Your task to perform on an android device: turn pop-ups off in chrome Image 0: 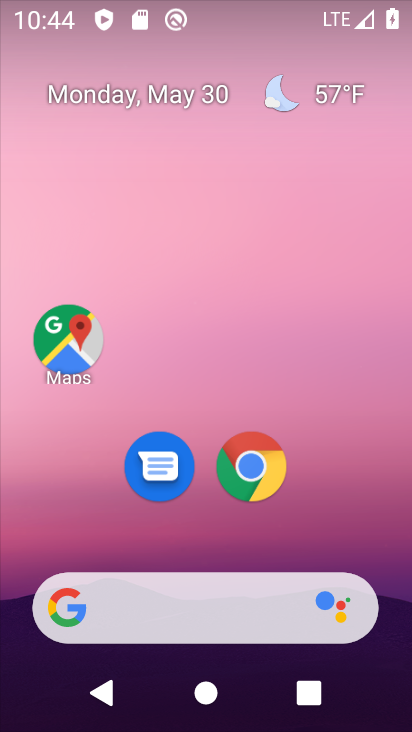
Step 0: click (259, 464)
Your task to perform on an android device: turn pop-ups off in chrome Image 1: 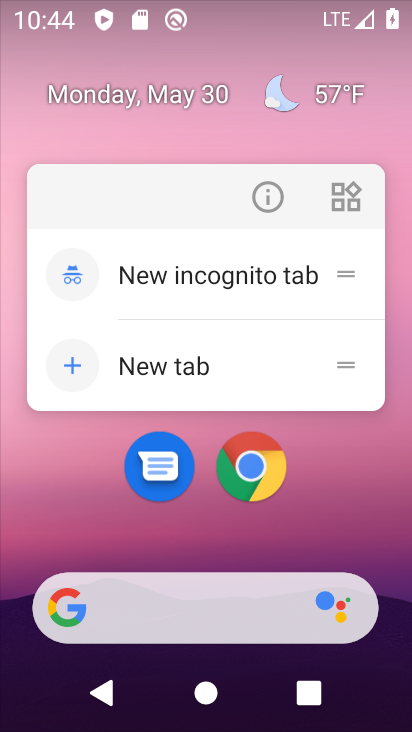
Step 1: click (251, 474)
Your task to perform on an android device: turn pop-ups off in chrome Image 2: 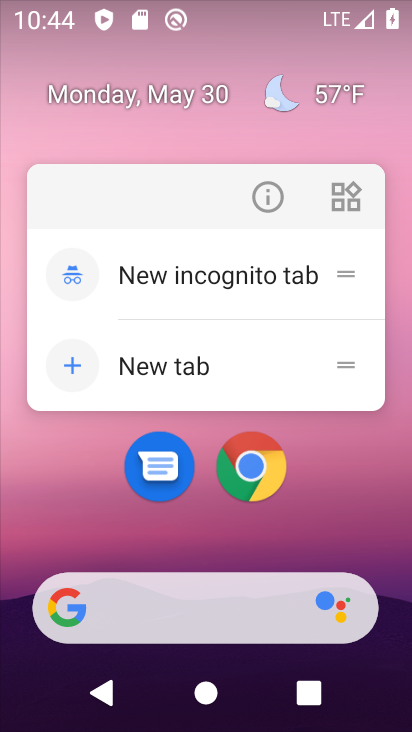
Step 2: click (249, 472)
Your task to perform on an android device: turn pop-ups off in chrome Image 3: 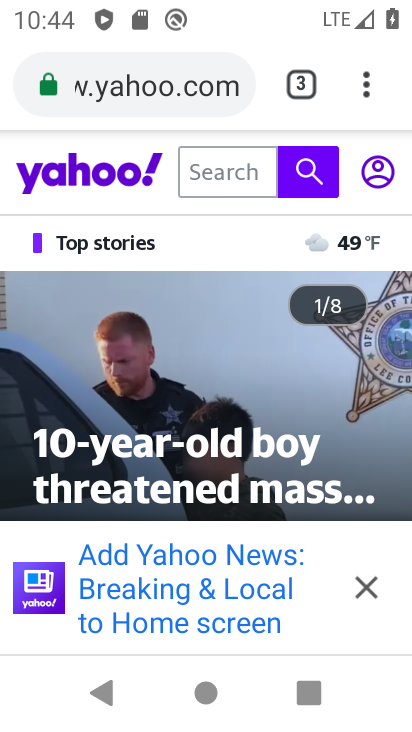
Step 3: drag from (358, 85) to (216, 483)
Your task to perform on an android device: turn pop-ups off in chrome Image 4: 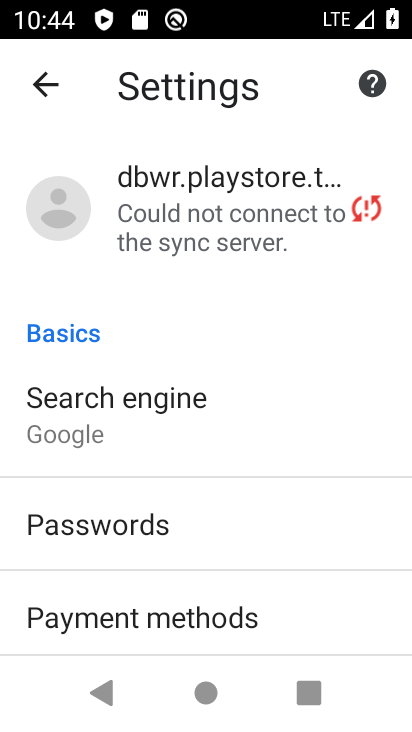
Step 4: drag from (328, 600) to (314, 140)
Your task to perform on an android device: turn pop-ups off in chrome Image 5: 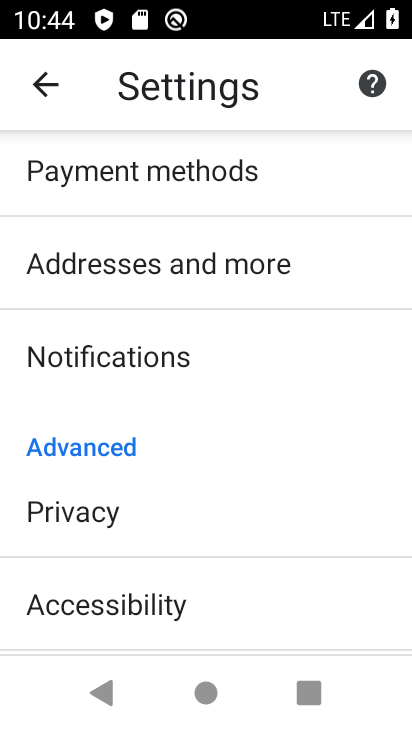
Step 5: drag from (318, 632) to (308, 447)
Your task to perform on an android device: turn pop-ups off in chrome Image 6: 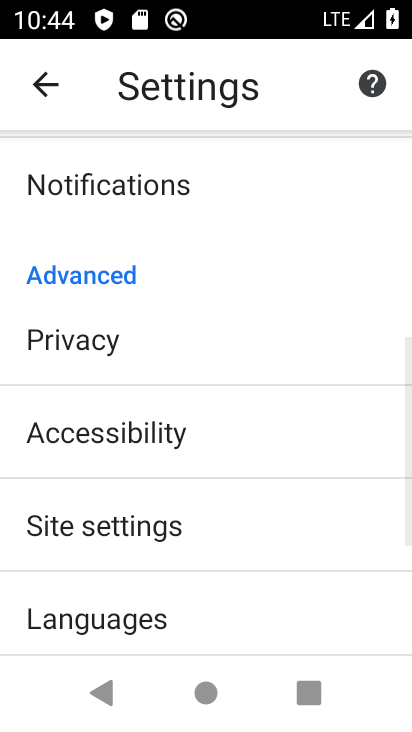
Step 6: click (226, 543)
Your task to perform on an android device: turn pop-ups off in chrome Image 7: 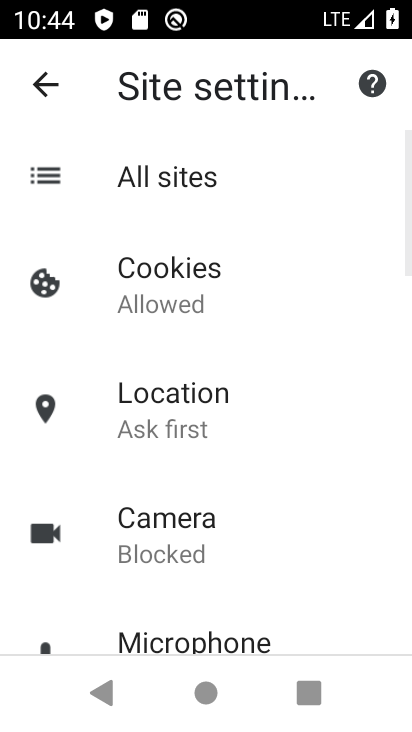
Step 7: drag from (307, 596) to (328, 147)
Your task to perform on an android device: turn pop-ups off in chrome Image 8: 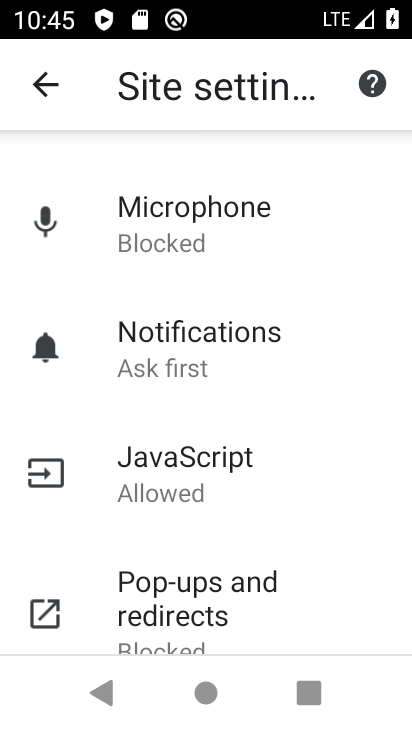
Step 8: click (237, 587)
Your task to perform on an android device: turn pop-ups off in chrome Image 9: 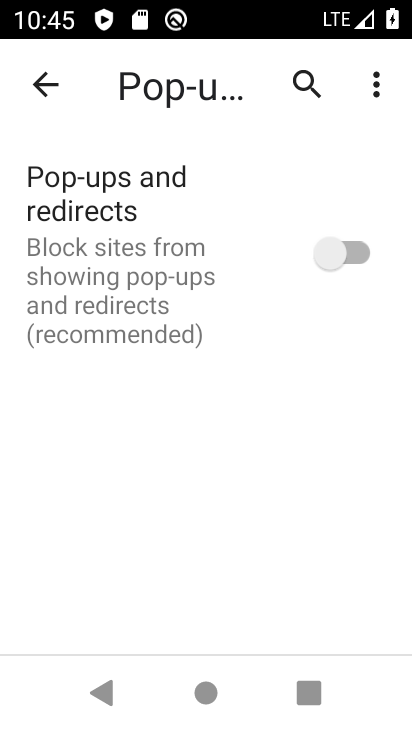
Step 9: task complete